Your task to perform on an android device: Search for sushi restaurants on Maps Image 0: 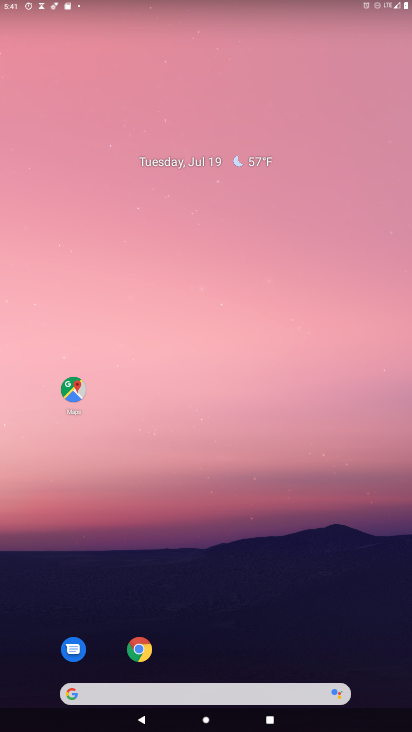
Step 0: click (73, 400)
Your task to perform on an android device: Search for sushi restaurants on Maps Image 1: 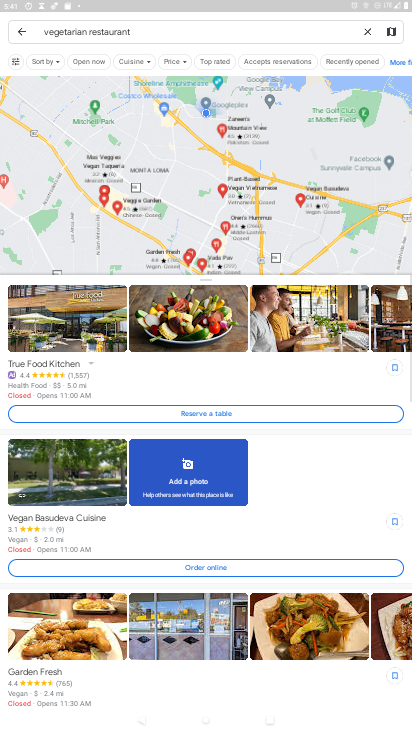
Step 1: click (365, 33)
Your task to perform on an android device: Search for sushi restaurants on Maps Image 2: 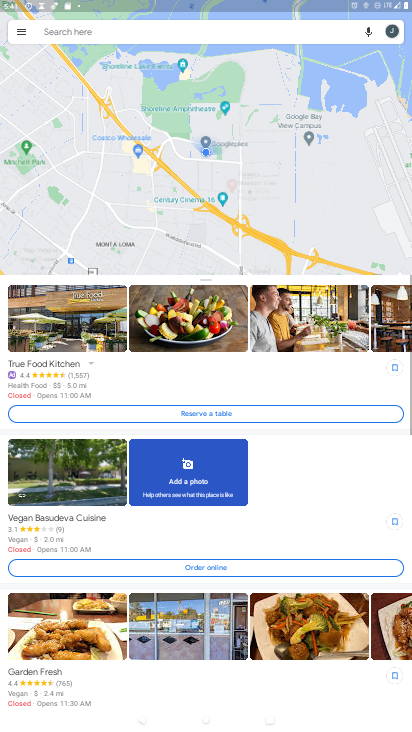
Step 2: click (309, 25)
Your task to perform on an android device: Search for sushi restaurants on Maps Image 3: 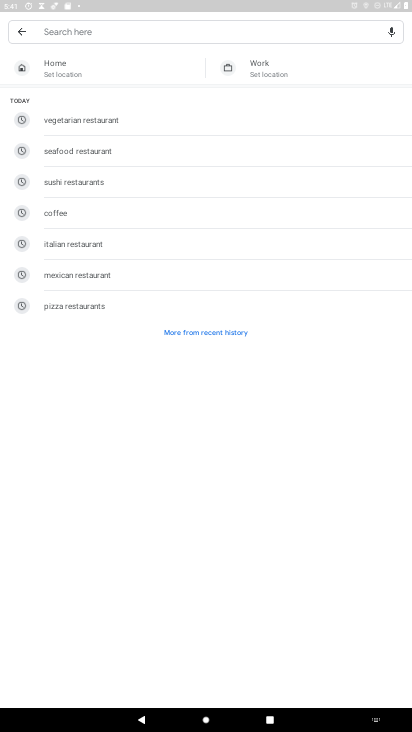
Step 3: type "sushi restaurants"
Your task to perform on an android device: Search for sushi restaurants on Maps Image 4: 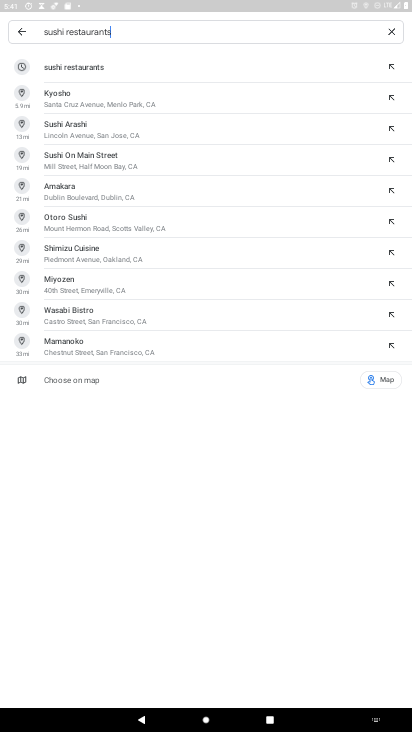
Step 4: click (69, 66)
Your task to perform on an android device: Search for sushi restaurants on Maps Image 5: 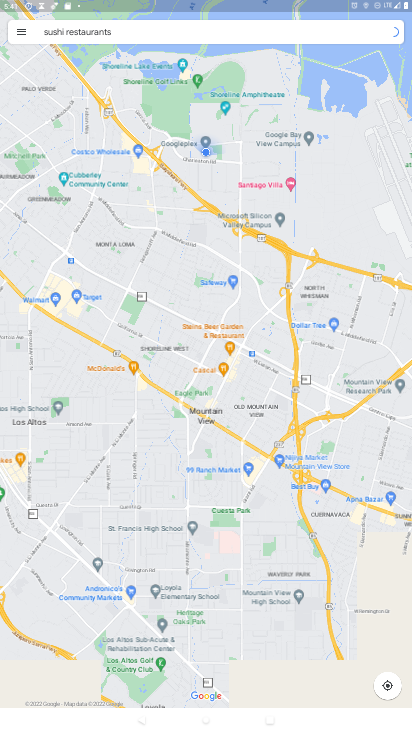
Step 5: task complete